Your task to perform on an android device: uninstall "WhatsApp Messenger" Image 0: 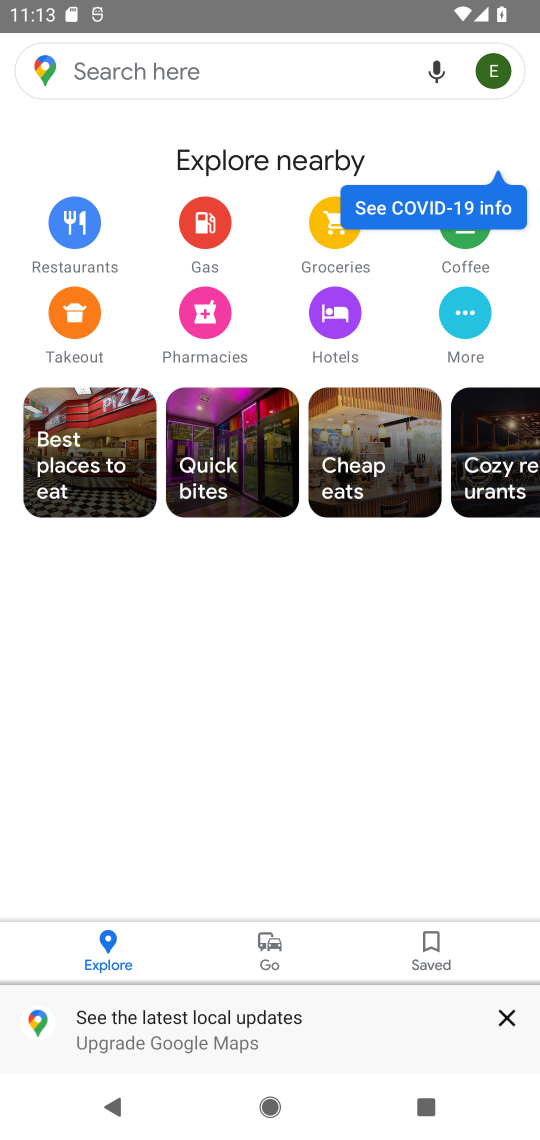
Step 0: press home button
Your task to perform on an android device: uninstall "WhatsApp Messenger" Image 1: 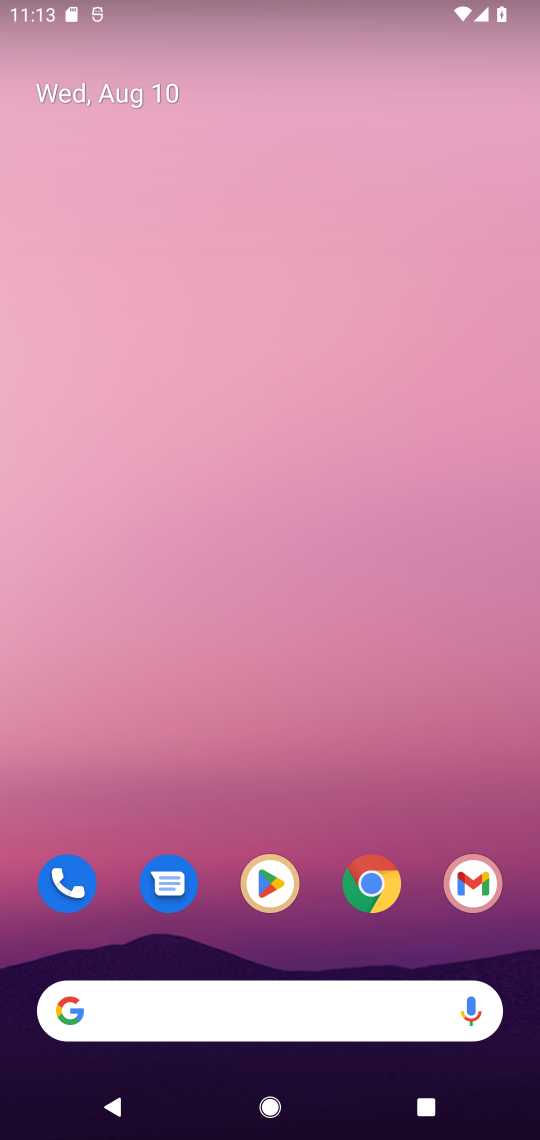
Step 1: drag from (328, 960) to (324, 82)
Your task to perform on an android device: uninstall "WhatsApp Messenger" Image 2: 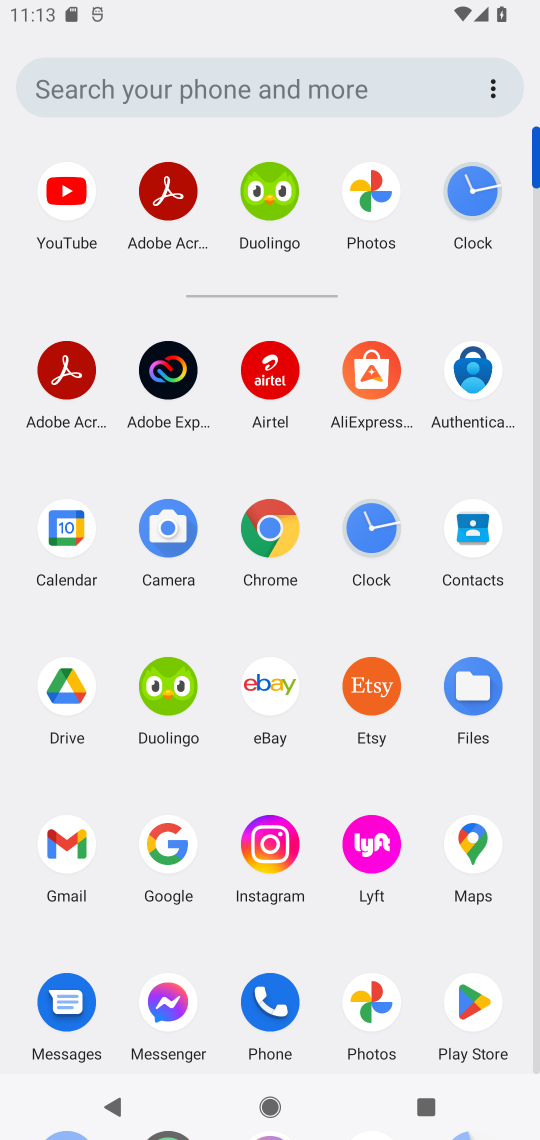
Step 2: click (470, 994)
Your task to perform on an android device: uninstall "WhatsApp Messenger" Image 3: 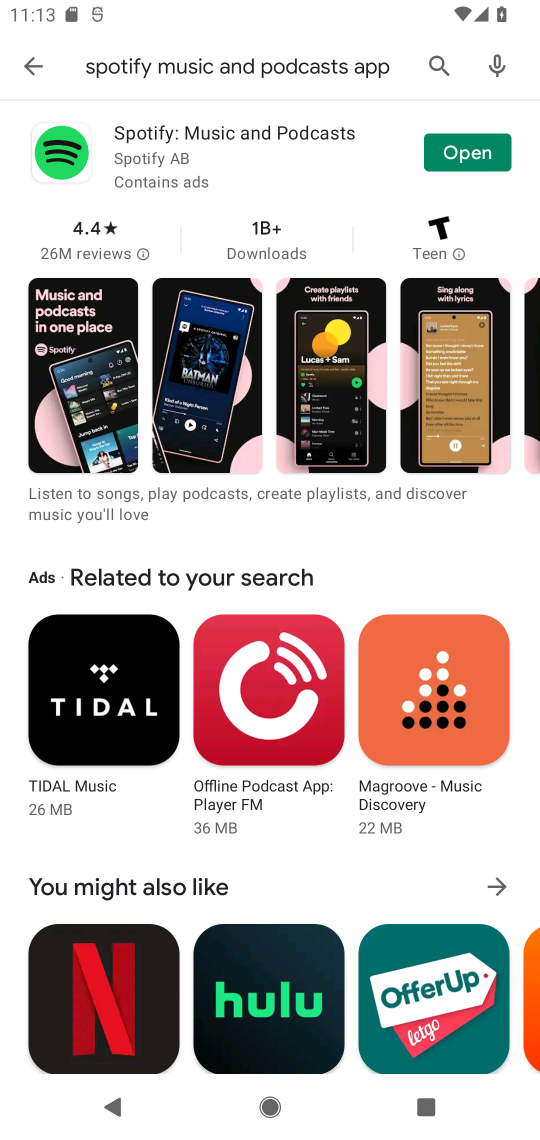
Step 3: click (439, 63)
Your task to perform on an android device: uninstall "WhatsApp Messenger" Image 4: 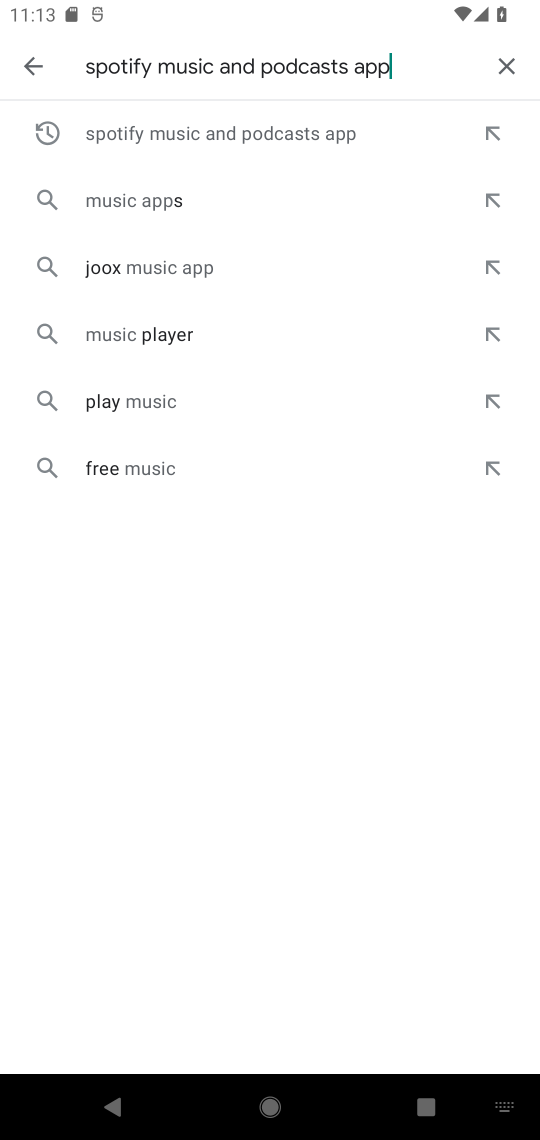
Step 4: click (505, 66)
Your task to perform on an android device: uninstall "WhatsApp Messenger" Image 5: 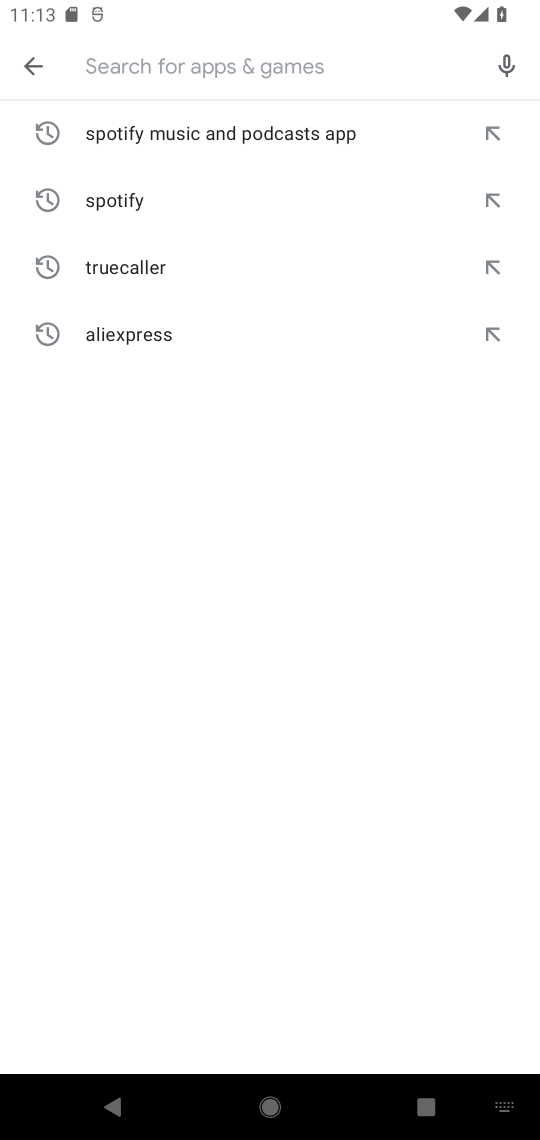
Step 5: type "WhatsApp Messenger"
Your task to perform on an android device: uninstall "WhatsApp Messenger" Image 6: 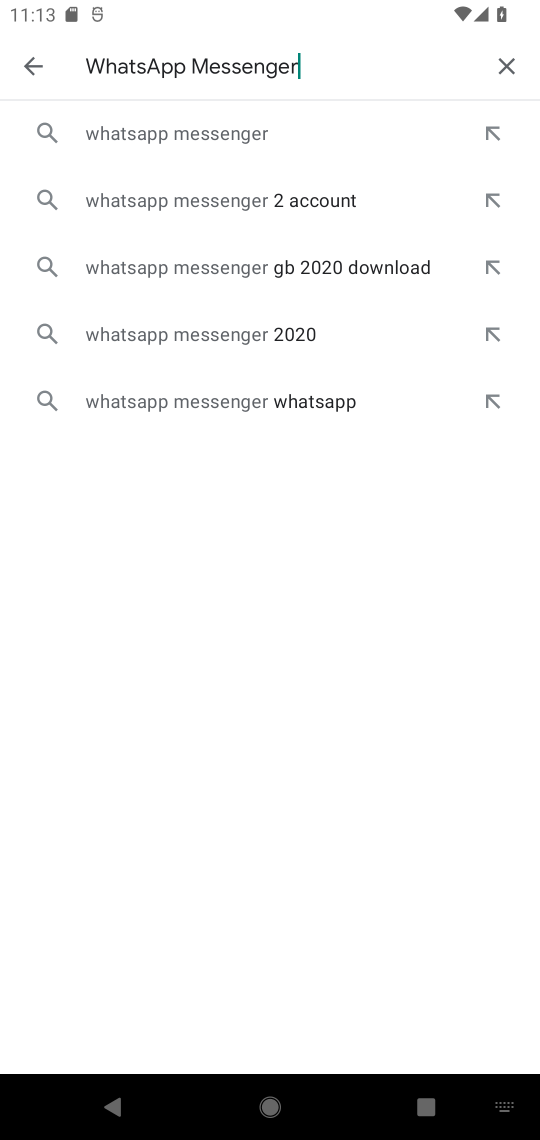
Step 6: click (224, 134)
Your task to perform on an android device: uninstall "WhatsApp Messenger" Image 7: 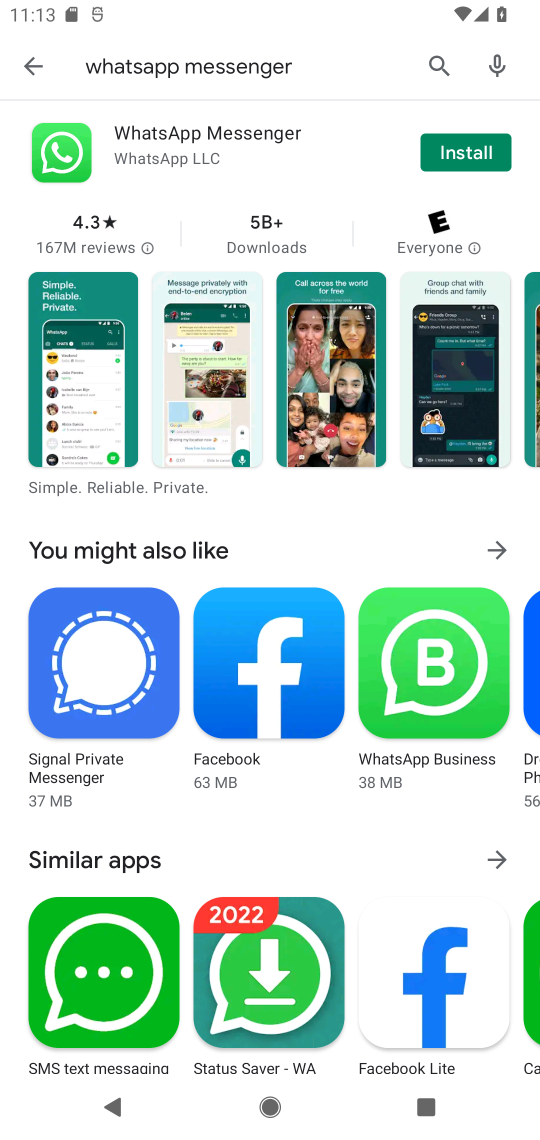
Step 7: click (203, 132)
Your task to perform on an android device: uninstall "WhatsApp Messenger" Image 8: 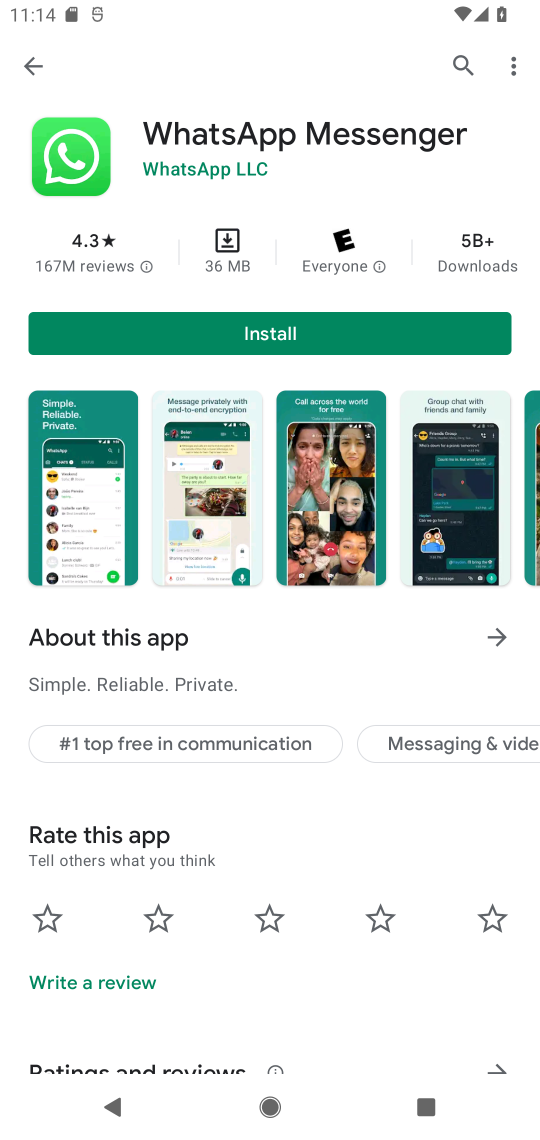
Step 8: task complete